Your task to perform on an android device: turn off location history Image 0: 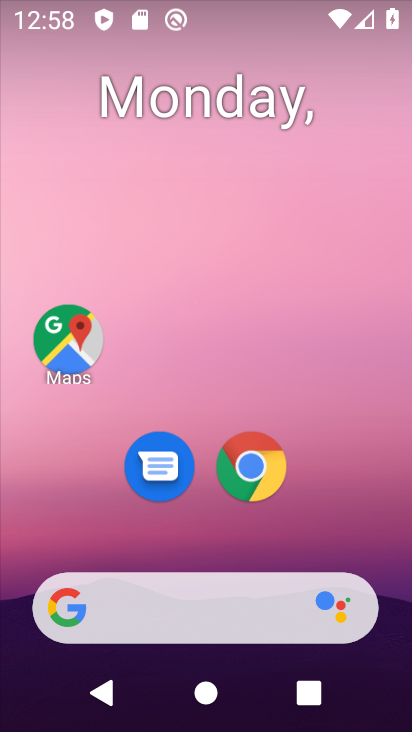
Step 0: drag from (201, 421) to (199, 16)
Your task to perform on an android device: turn off location history Image 1: 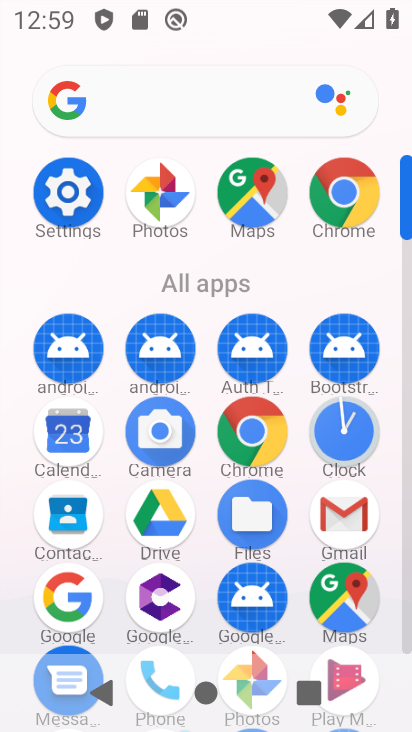
Step 1: click (66, 216)
Your task to perform on an android device: turn off location history Image 2: 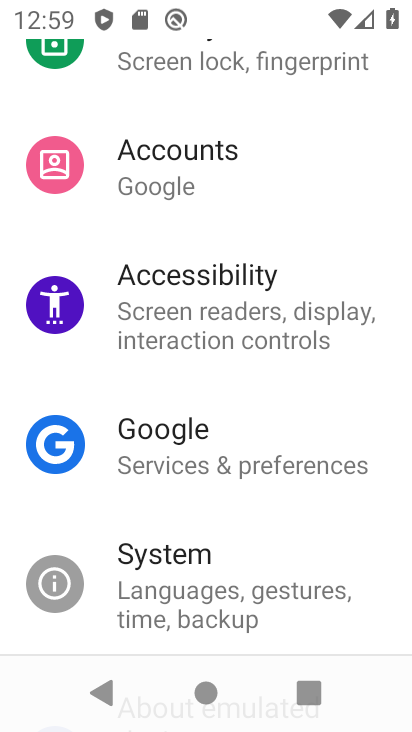
Step 2: drag from (244, 315) to (206, 639)
Your task to perform on an android device: turn off location history Image 3: 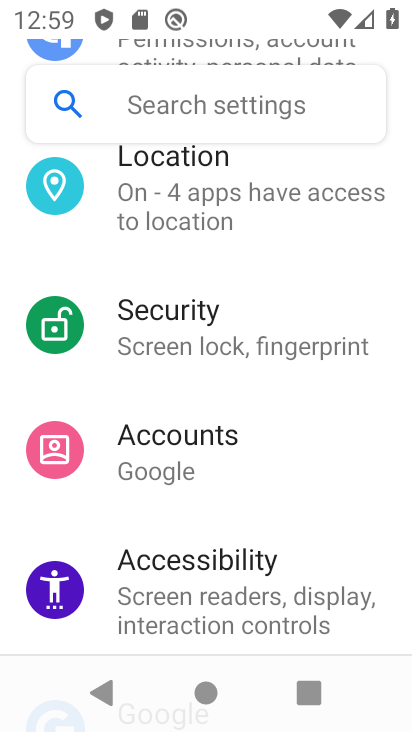
Step 3: click (211, 221)
Your task to perform on an android device: turn off location history Image 4: 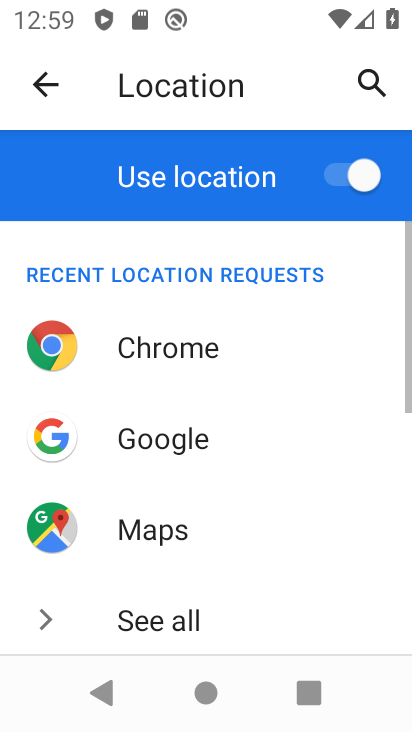
Step 4: drag from (188, 592) to (249, 278)
Your task to perform on an android device: turn off location history Image 5: 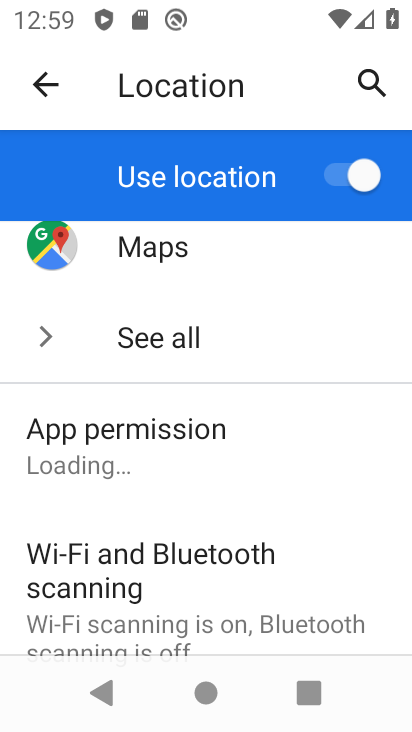
Step 5: drag from (217, 574) to (249, 324)
Your task to perform on an android device: turn off location history Image 6: 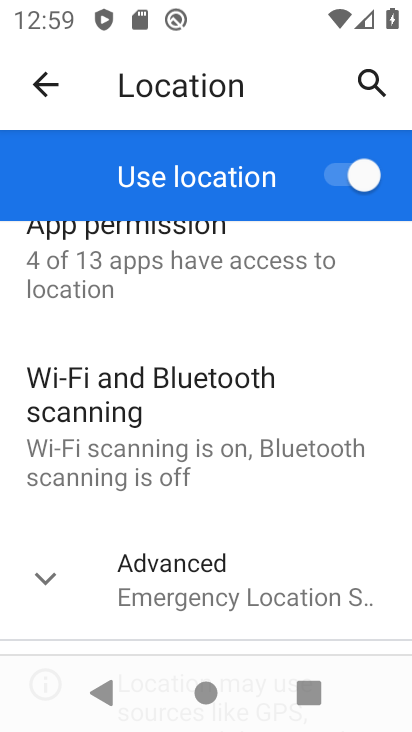
Step 6: click (216, 578)
Your task to perform on an android device: turn off location history Image 7: 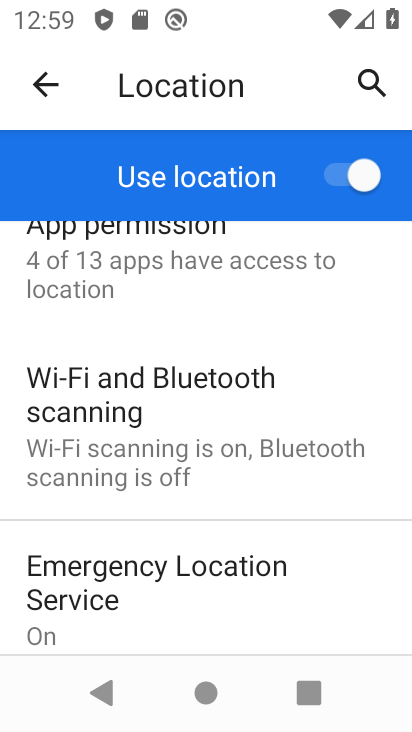
Step 7: drag from (185, 570) to (219, 277)
Your task to perform on an android device: turn off location history Image 8: 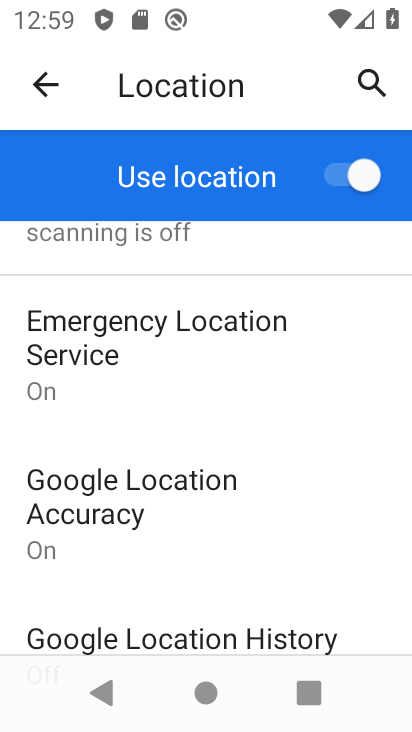
Step 8: drag from (184, 570) to (255, 162)
Your task to perform on an android device: turn off location history Image 9: 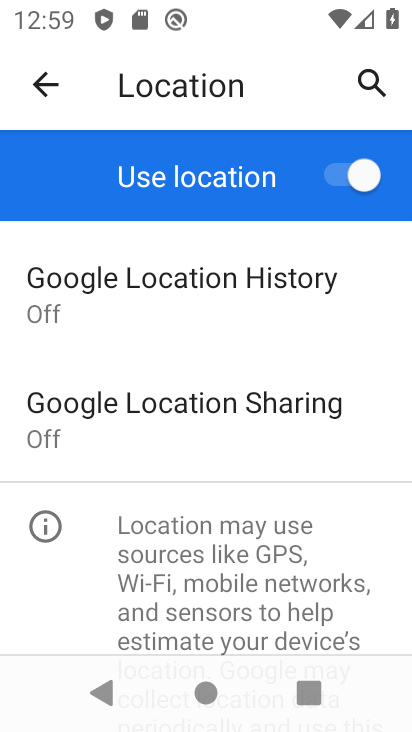
Step 9: click (171, 305)
Your task to perform on an android device: turn off location history Image 10: 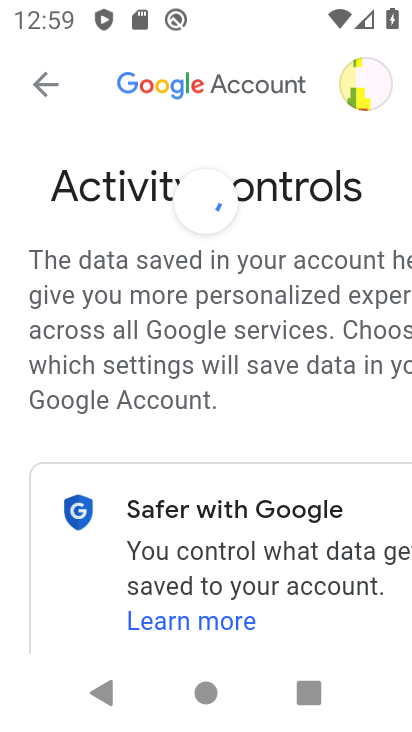
Step 10: drag from (219, 576) to (275, 81)
Your task to perform on an android device: turn off location history Image 11: 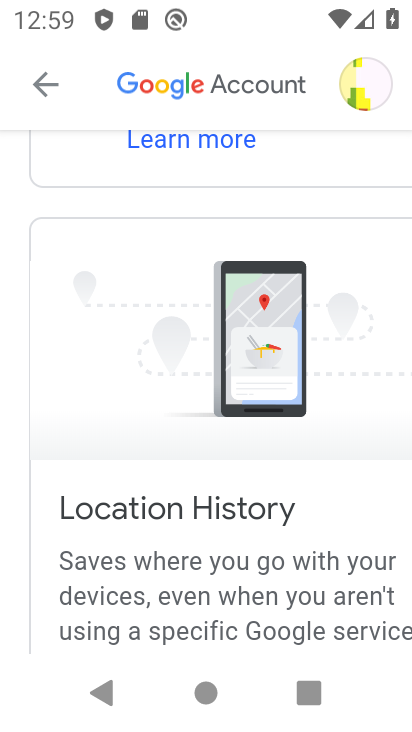
Step 11: drag from (243, 374) to (272, 16)
Your task to perform on an android device: turn off location history Image 12: 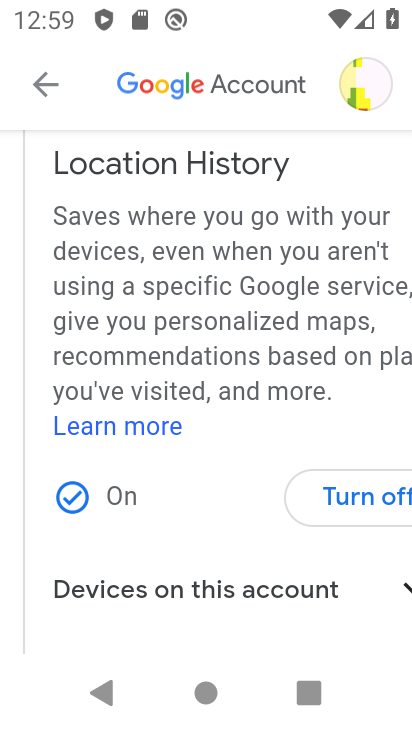
Step 12: click (340, 493)
Your task to perform on an android device: turn off location history Image 13: 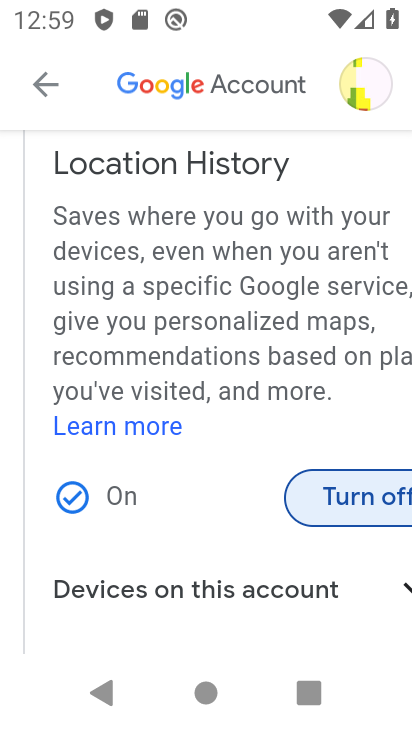
Step 13: click (331, 492)
Your task to perform on an android device: turn off location history Image 14: 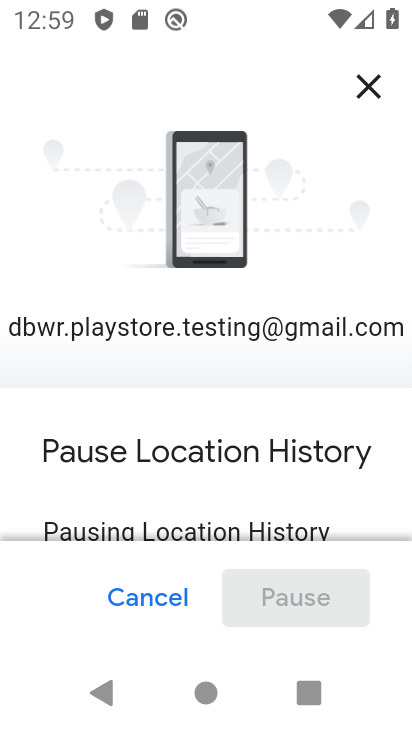
Step 14: drag from (218, 489) to (256, 0)
Your task to perform on an android device: turn off location history Image 15: 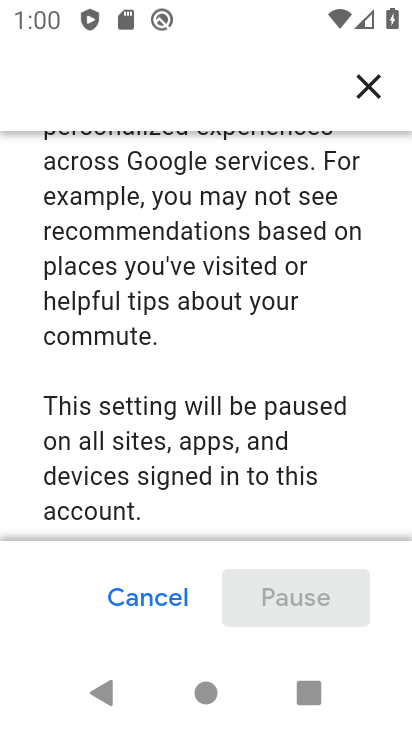
Step 15: drag from (222, 438) to (284, 72)
Your task to perform on an android device: turn off location history Image 16: 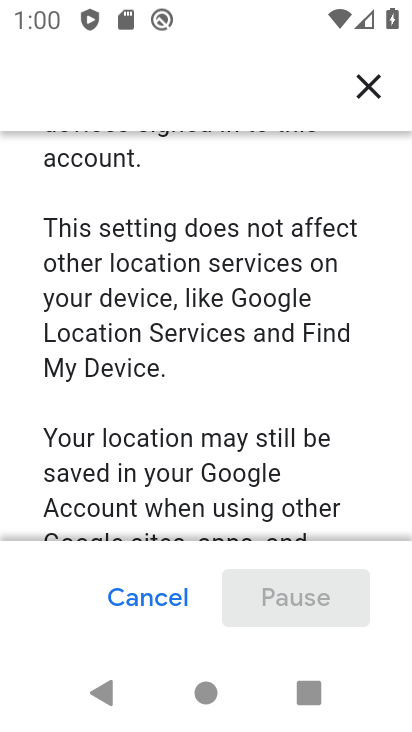
Step 16: drag from (238, 507) to (315, 9)
Your task to perform on an android device: turn off location history Image 17: 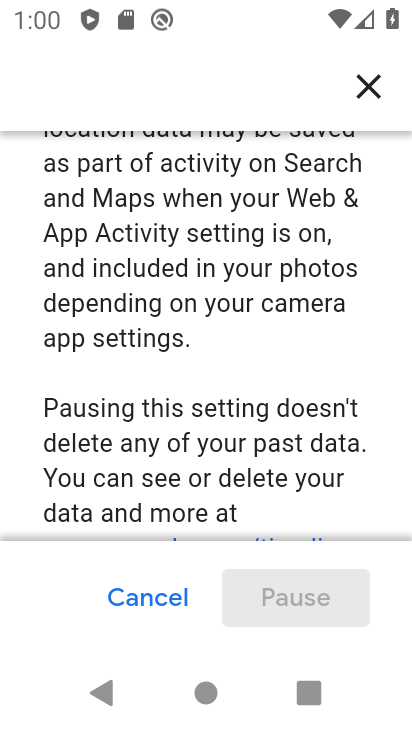
Step 17: drag from (208, 463) to (260, 31)
Your task to perform on an android device: turn off location history Image 18: 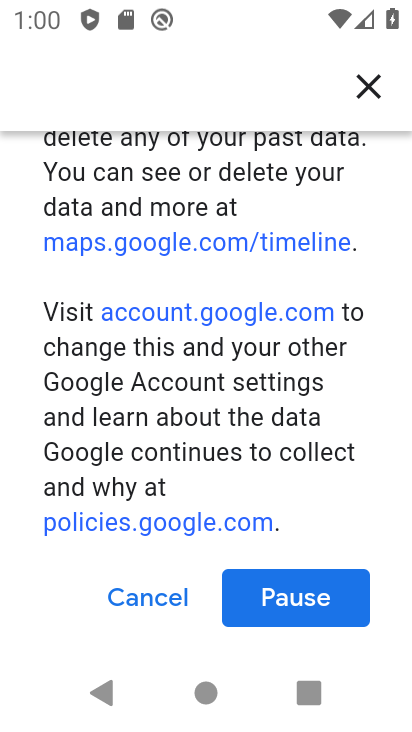
Step 18: click (301, 607)
Your task to perform on an android device: turn off location history Image 19: 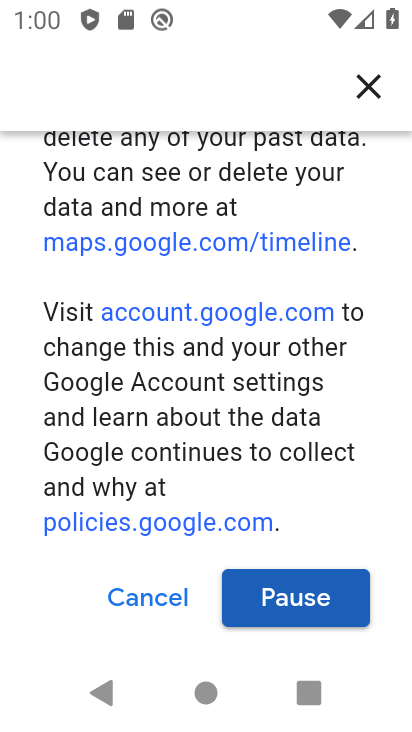
Step 19: click (311, 591)
Your task to perform on an android device: turn off location history Image 20: 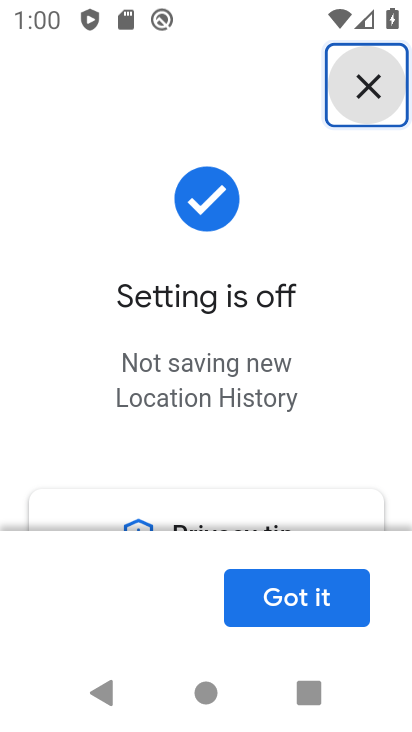
Step 20: click (309, 604)
Your task to perform on an android device: turn off location history Image 21: 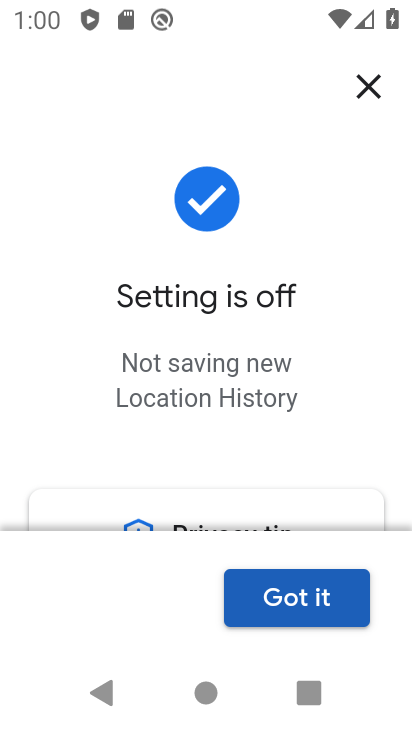
Step 21: click (326, 608)
Your task to perform on an android device: turn off location history Image 22: 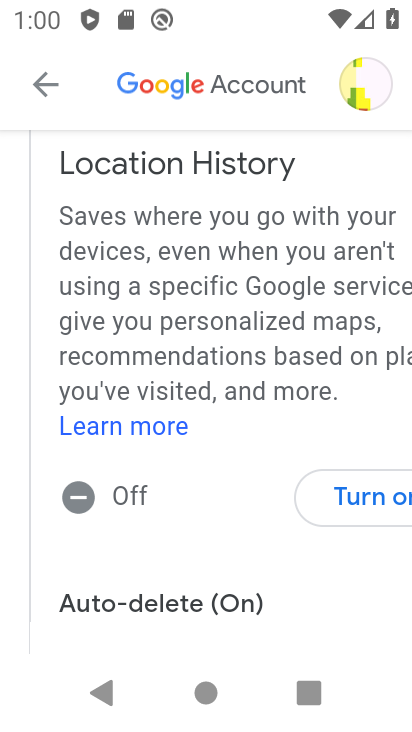
Step 22: task complete